Your task to perform on an android device: Go to battery settings Image 0: 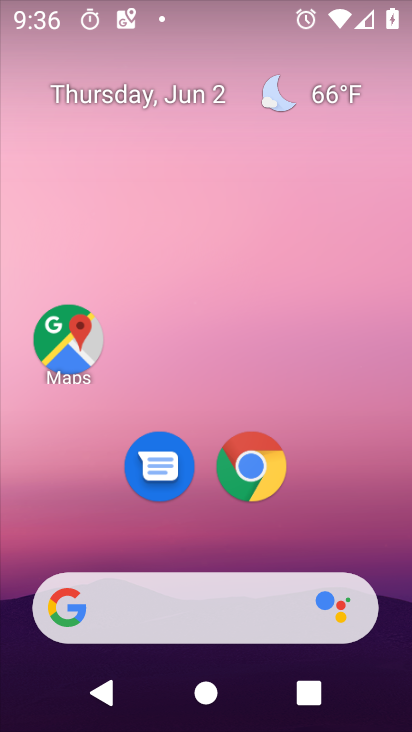
Step 0: drag from (14, 649) to (277, 90)
Your task to perform on an android device: Go to battery settings Image 1: 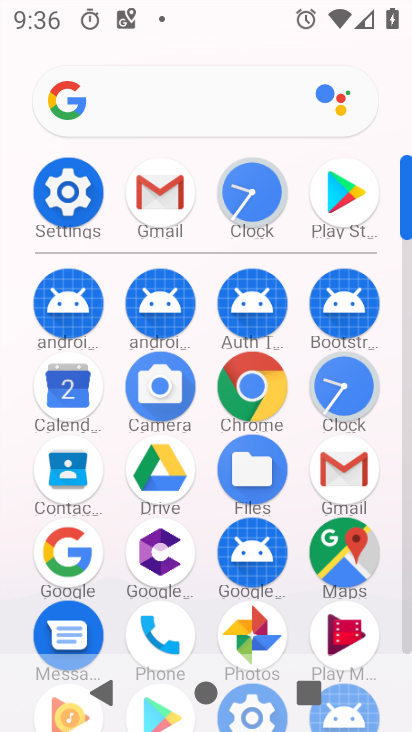
Step 1: click (77, 183)
Your task to perform on an android device: Go to battery settings Image 2: 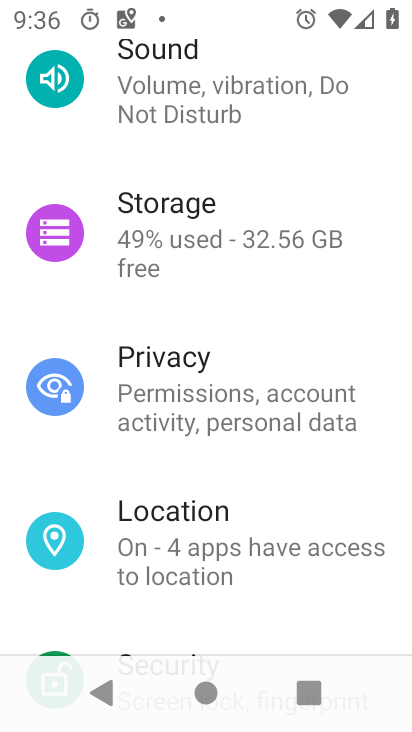
Step 2: drag from (3, 527) to (255, 105)
Your task to perform on an android device: Go to battery settings Image 3: 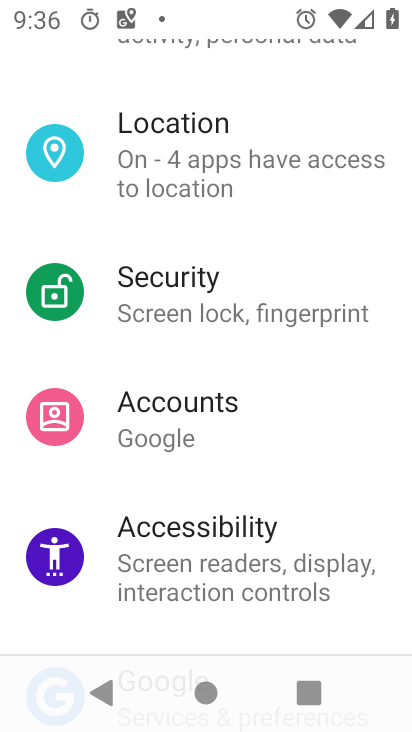
Step 3: drag from (7, 500) to (250, 149)
Your task to perform on an android device: Go to battery settings Image 4: 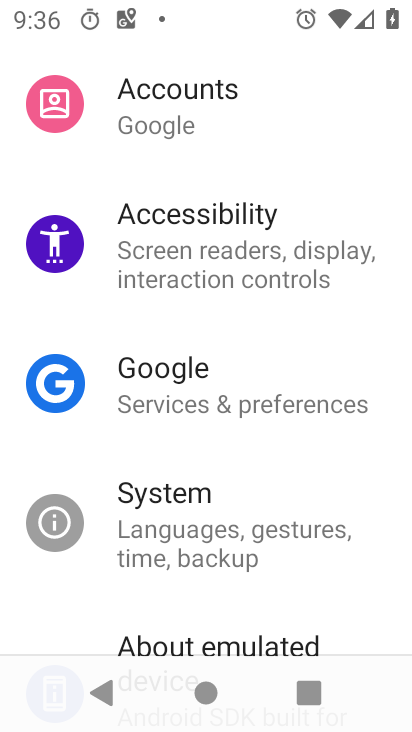
Step 4: drag from (287, 107) to (153, 556)
Your task to perform on an android device: Go to battery settings Image 5: 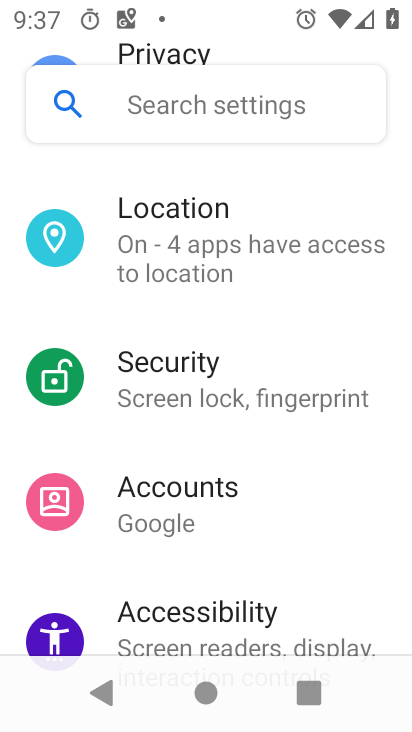
Step 5: drag from (237, 188) to (203, 541)
Your task to perform on an android device: Go to battery settings Image 6: 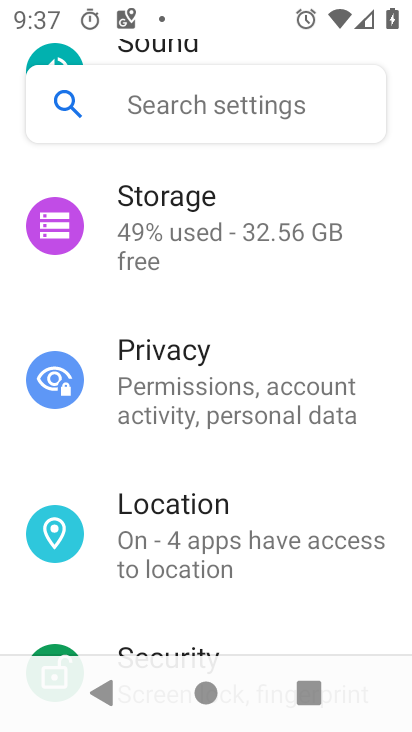
Step 6: drag from (246, 249) to (242, 570)
Your task to perform on an android device: Go to battery settings Image 7: 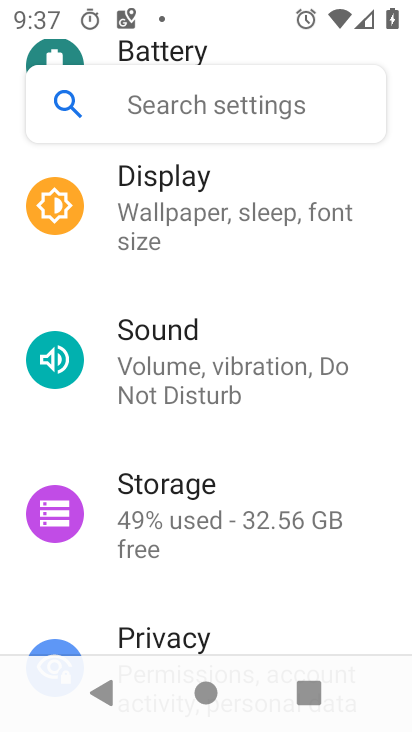
Step 7: drag from (257, 206) to (243, 503)
Your task to perform on an android device: Go to battery settings Image 8: 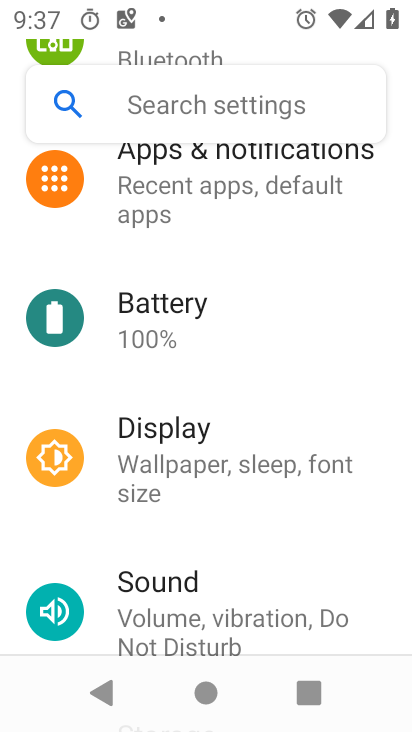
Step 8: click (176, 325)
Your task to perform on an android device: Go to battery settings Image 9: 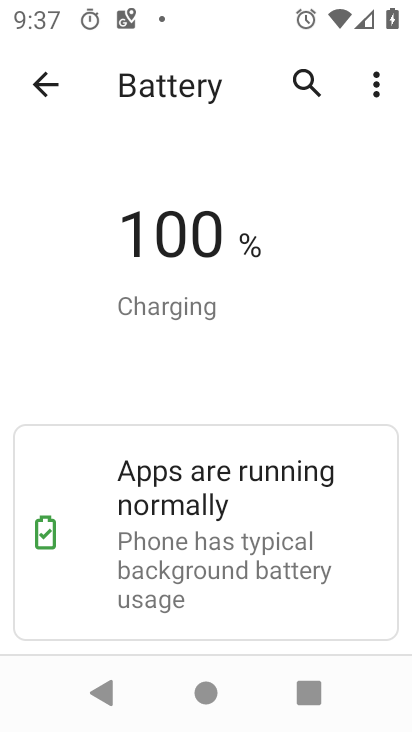
Step 9: task complete